Your task to perform on an android device: Go to internet settings Image 0: 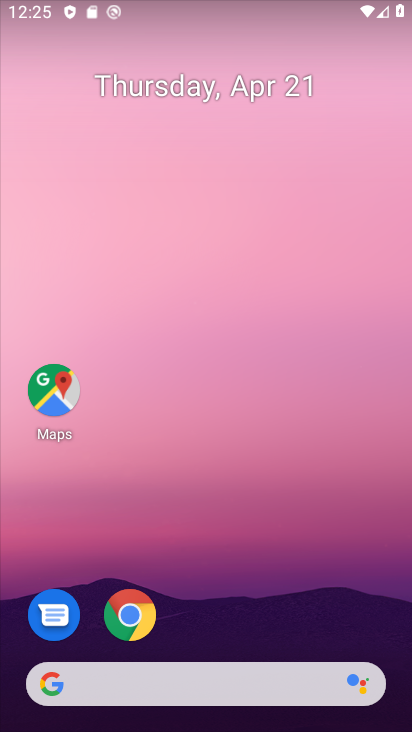
Step 0: drag from (293, 549) to (281, 23)
Your task to perform on an android device: Go to internet settings Image 1: 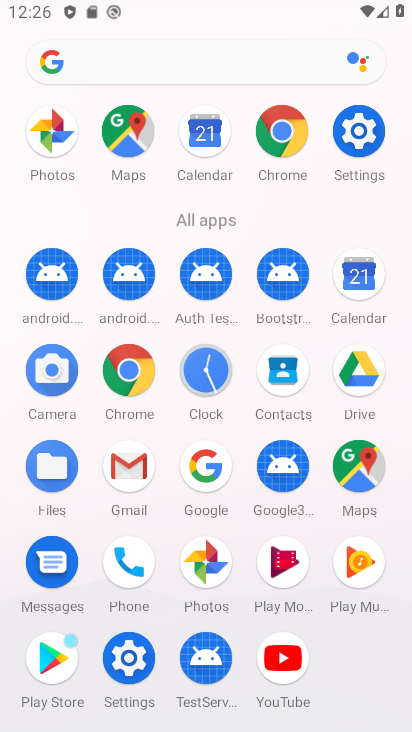
Step 1: click (366, 132)
Your task to perform on an android device: Go to internet settings Image 2: 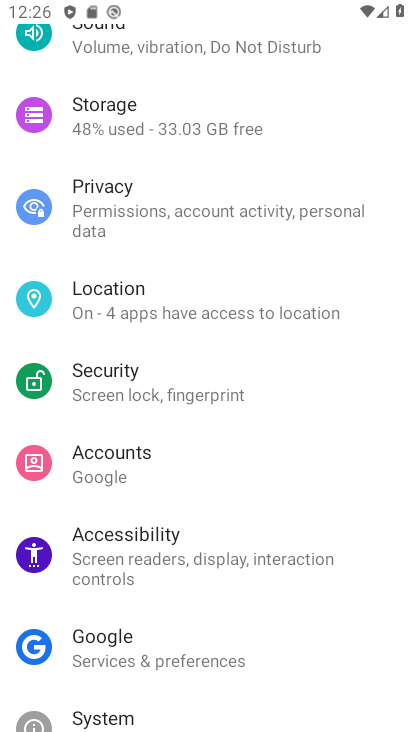
Step 2: drag from (130, 221) to (130, 720)
Your task to perform on an android device: Go to internet settings Image 3: 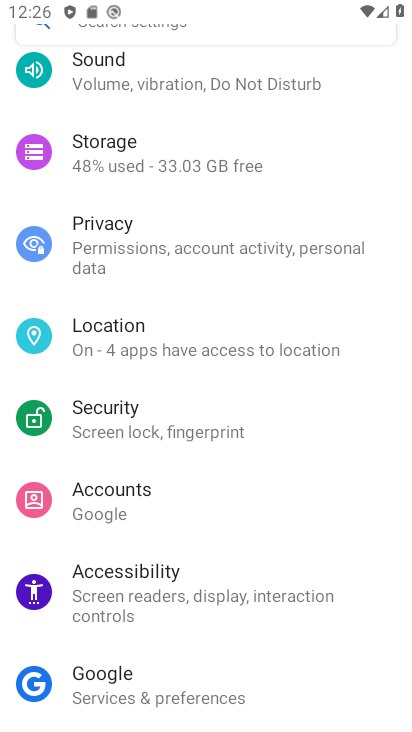
Step 3: drag from (252, 215) to (214, 728)
Your task to perform on an android device: Go to internet settings Image 4: 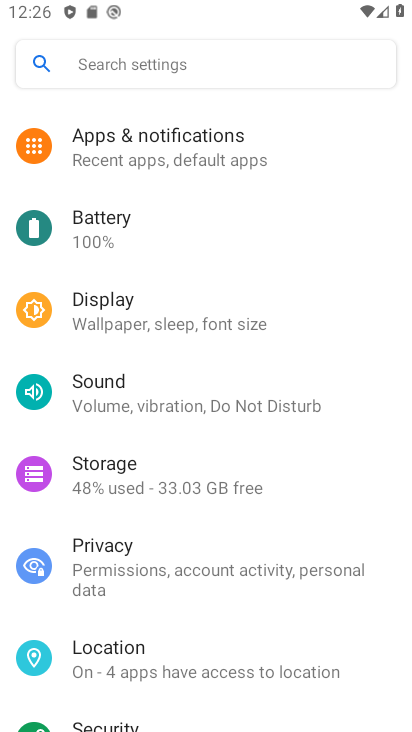
Step 4: drag from (267, 342) to (240, 712)
Your task to perform on an android device: Go to internet settings Image 5: 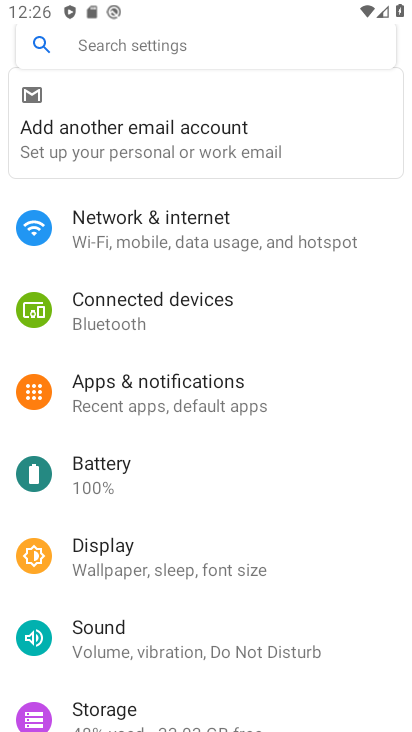
Step 5: click (161, 223)
Your task to perform on an android device: Go to internet settings Image 6: 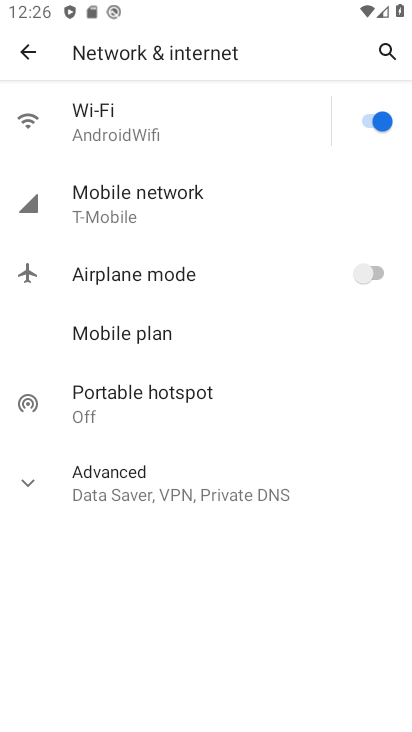
Step 6: task complete